Your task to perform on an android device: Go to Yahoo.com Image 0: 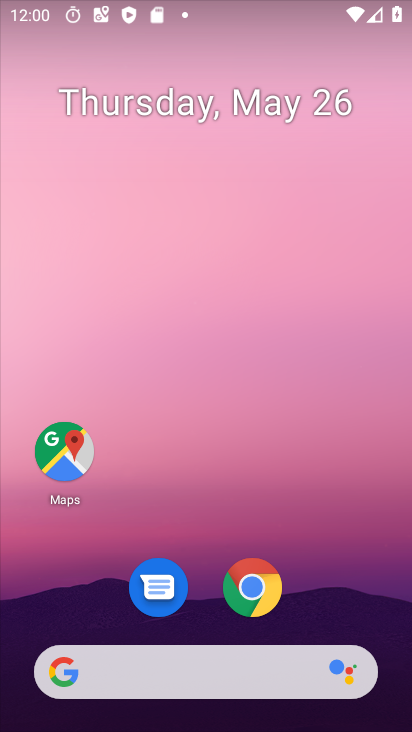
Step 0: press home button
Your task to perform on an android device: Go to Yahoo.com Image 1: 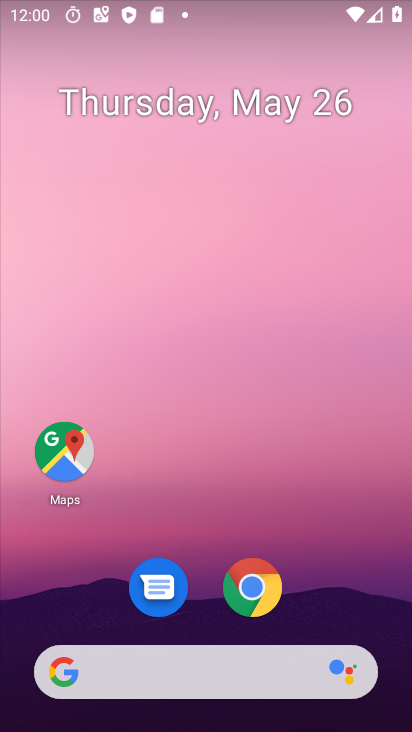
Step 1: drag from (258, 687) to (310, 75)
Your task to perform on an android device: Go to Yahoo.com Image 2: 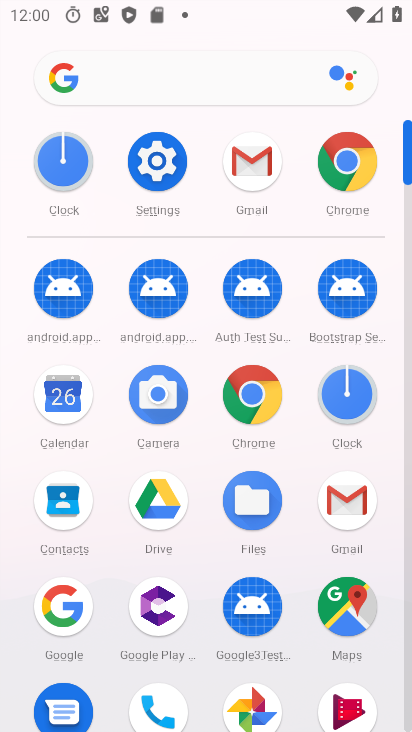
Step 2: click (362, 158)
Your task to perform on an android device: Go to Yahoo.com Image 3: 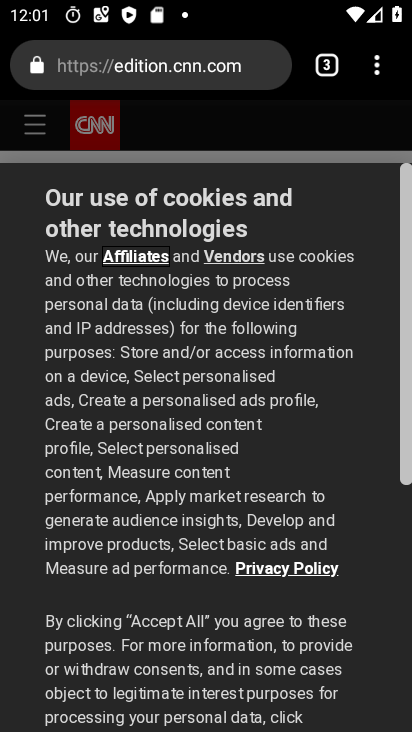
Step 3: drag from (232, 512) to (246, 102)
Your task to perform on an android device: Go to Yahoo.com Image 4: 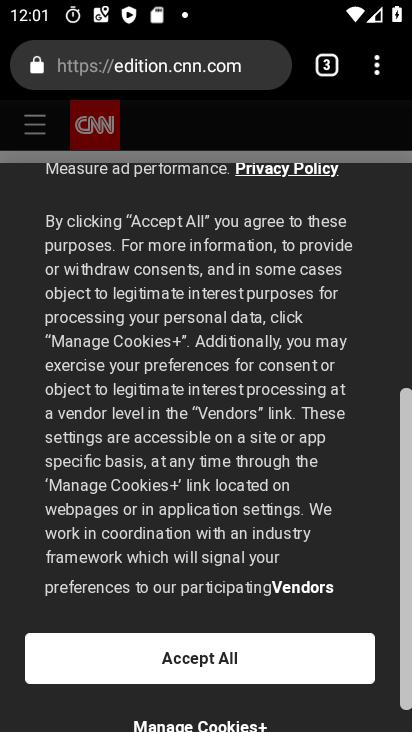
Step 4: click (197, 664)
Your task to perform on an android device: Go to Yahoo.com Image 5: 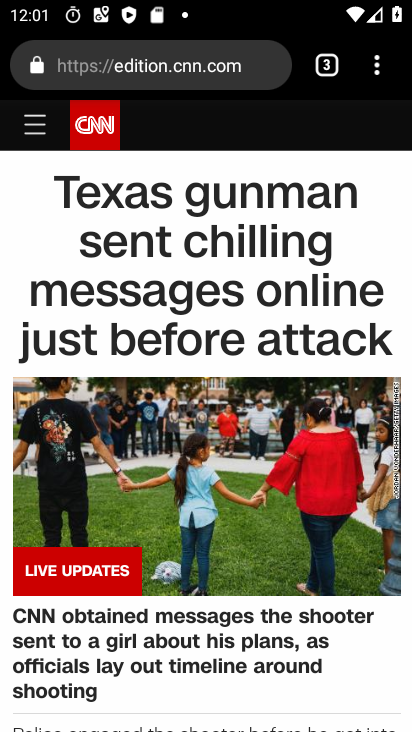
Step 5: task complete